Your task to perform on an android device: change text size in settings app Image 0: 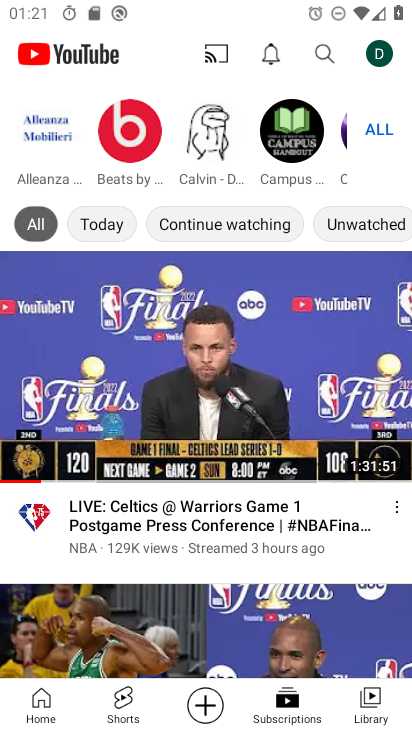
Step 0: press home button
Your task to perform on an android device: change text size in settings app Image 1: 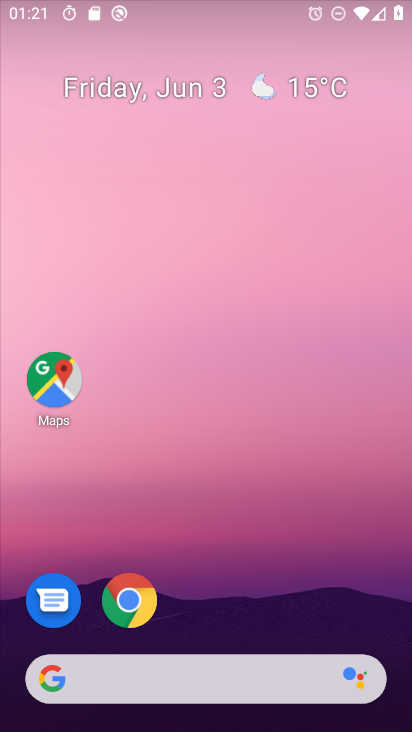
Step 1: drag from (254, 615) to (323, 47)
Your task to perform on an android device: change text size in settings app Image 2: 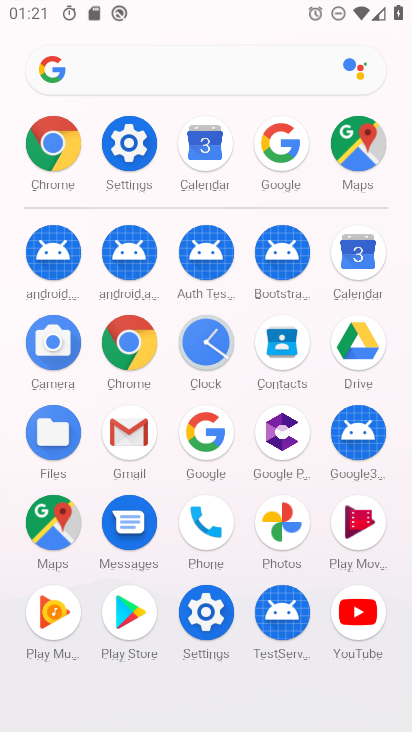
Step 2: click (121, 146)
Your task to perform on an android device: change text size in settings app Image 3: 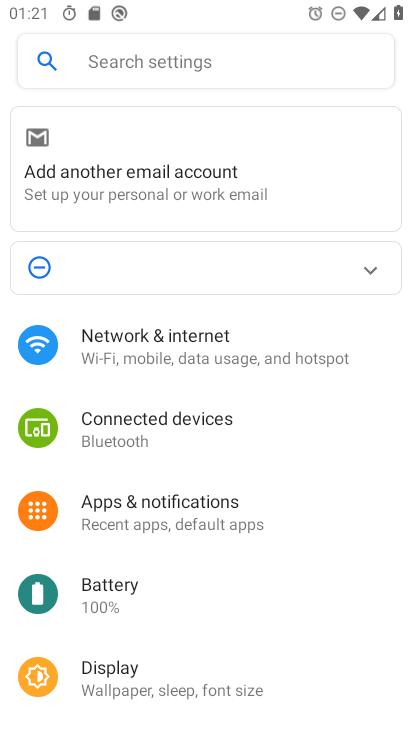
Step 3: click (147, 681)
Your task to perform on an android device: change text size in settings app Image 4: 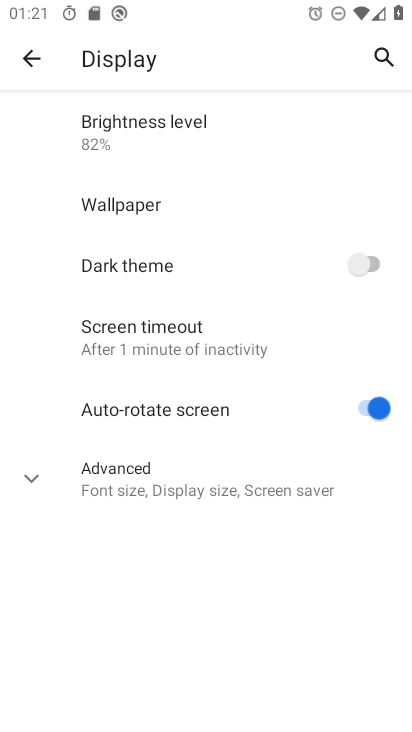
Step 4: click (103, 471)
Your task to perform on an android device: change text size in settings app Image 5: 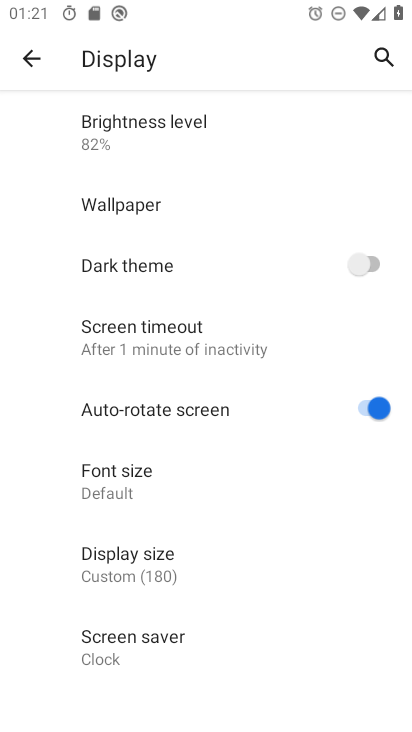
Step 5: click (126, 497)
Your task to perform on an android device: change text size in settings app Image 6: 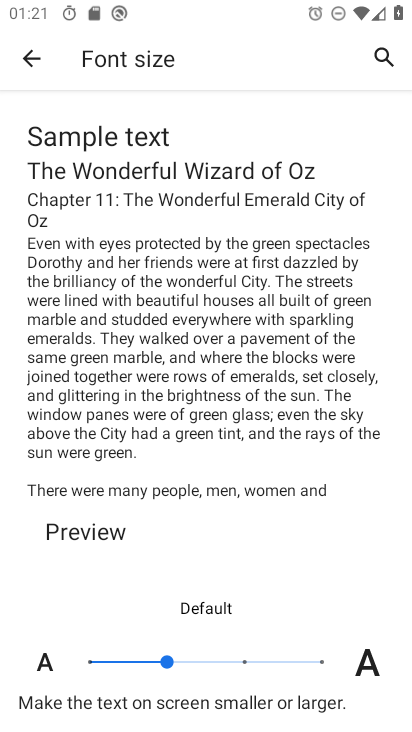
Step 6: task complete